Your task to perform on an android device: Open CNN.com Image 0: 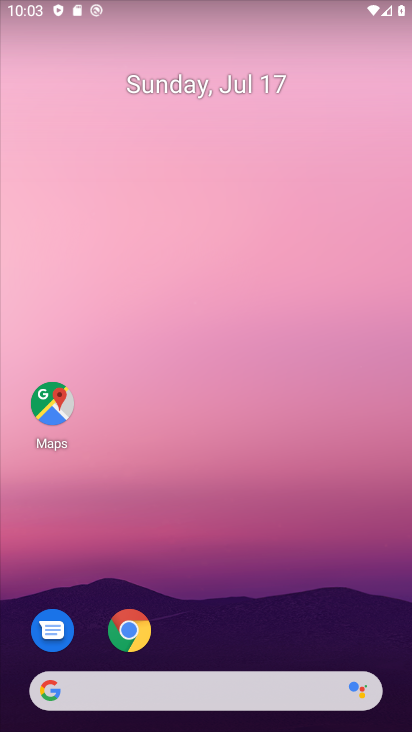
Step 0: drag from (329, 579) to (322, 54)
Your task to perform on an android device: Open CNN.com Image 1: 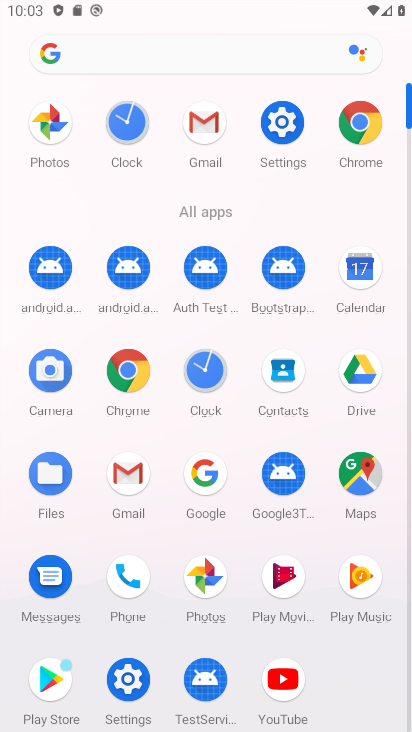
Step 1: click (131, 366)
Your task to perform on an android device: Open CNN.com Image 2: 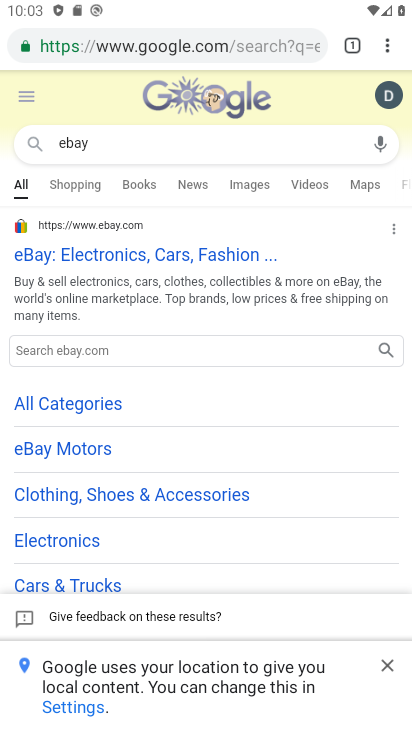
Step 2: click (205, 53)
Your task to perform on an android device: Open CNN.com Image 3: 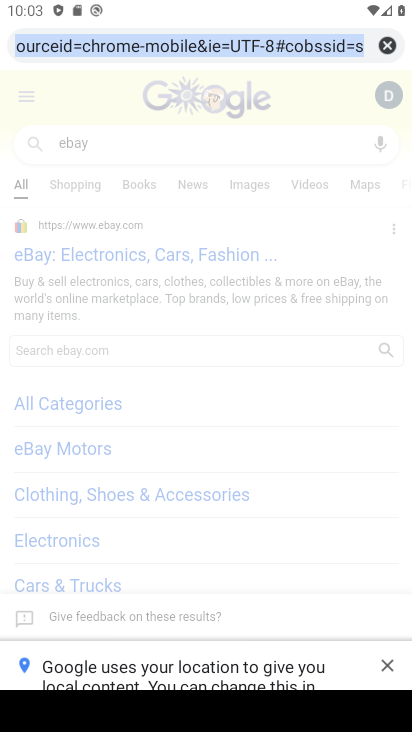
Step 3: type "cnn.com"
Your task to perform on an android device: Open CNN.com Image 4: 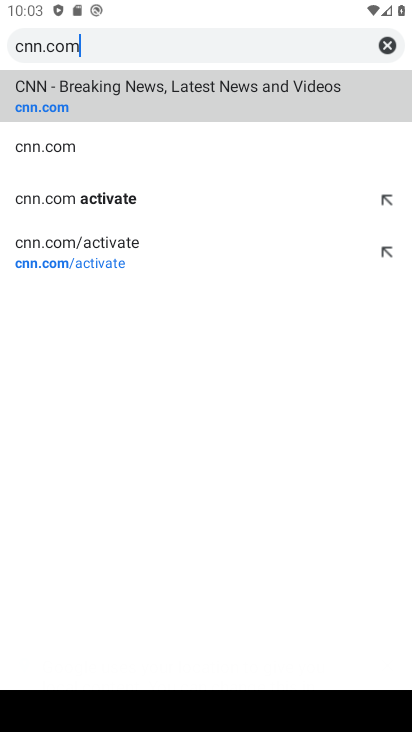
Step 4: click (281, 104)
Your task to perform on an android device: Open CNN.com Image 5: 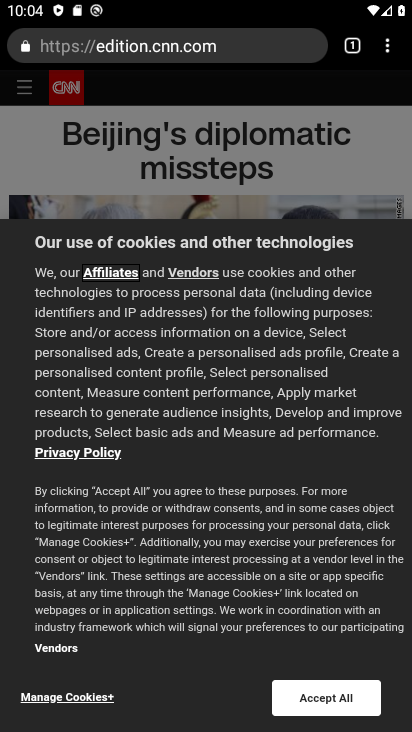
Step 5: task complete